Your task to perform on an android device: open app "Spotify: Music and Podcasts" (install if not already installed) and enter user name: "principled@inbox.com" and password: "arrests" Image 0: 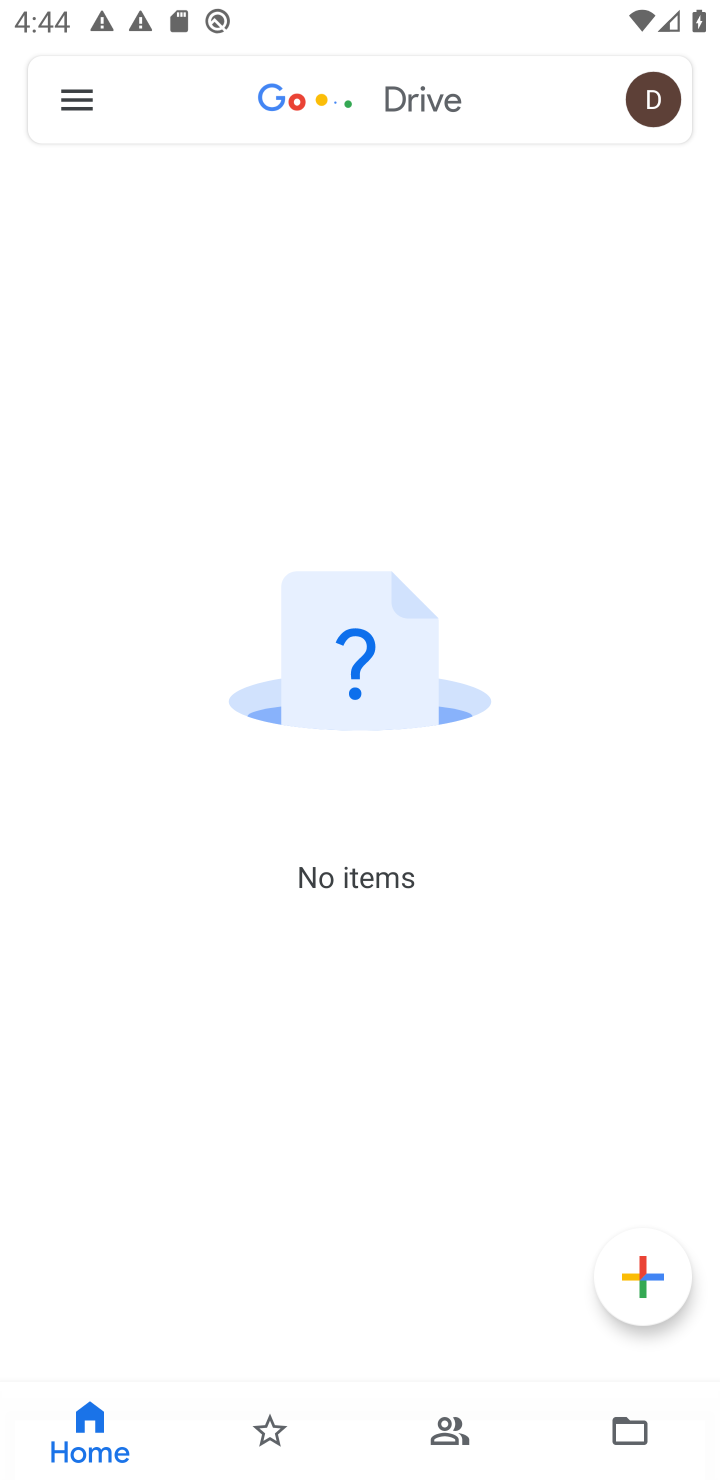
Step 0: press back button
Your task to perform on an android device: open app "Spotify: Music and Podcasts" (install if not already installed) and enter user name: "principled@inbox.com" and password: "arrests" Image 1: 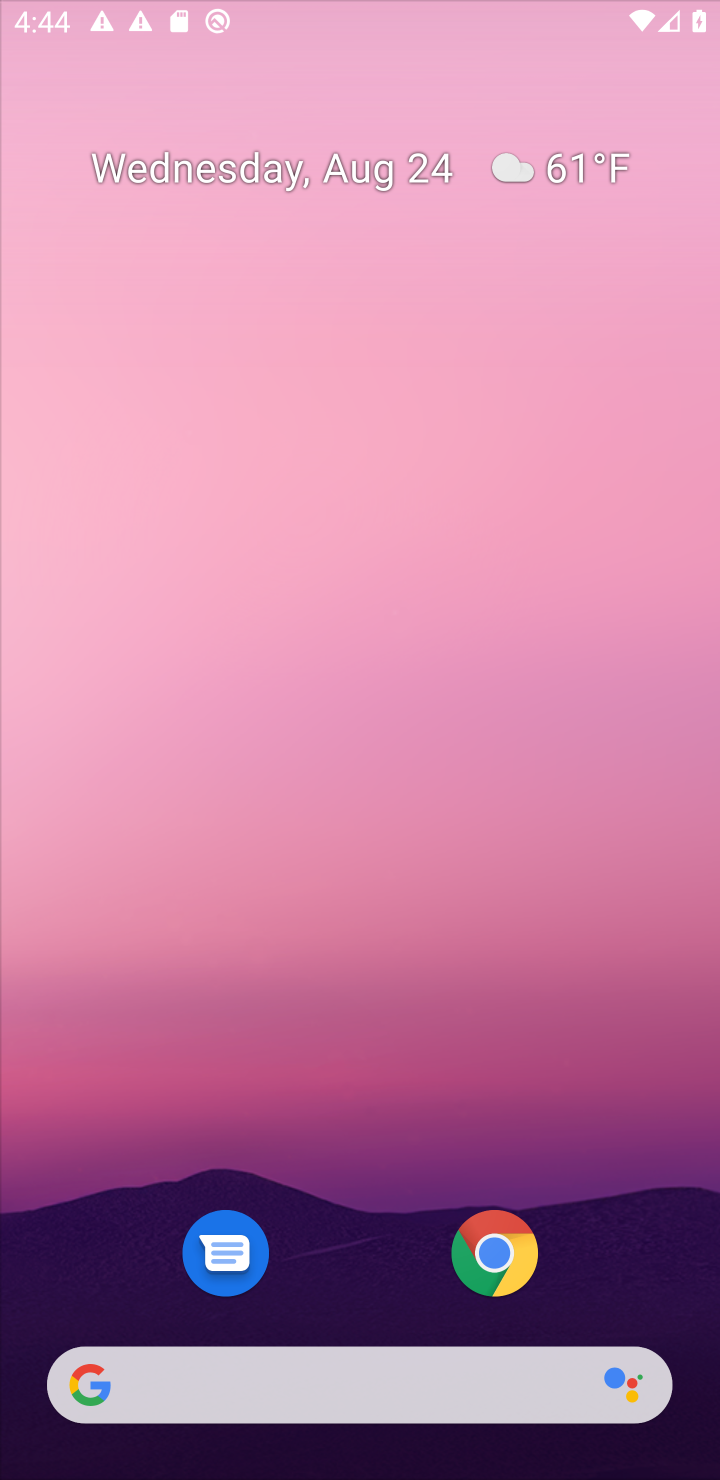
Step 1: press back button
Your task to perform on an android device: open app "Spotify: Music and Podcasts" (install if not already installed) and enter user name: "principled@inbox.com" and password: "arrests" Image 2: 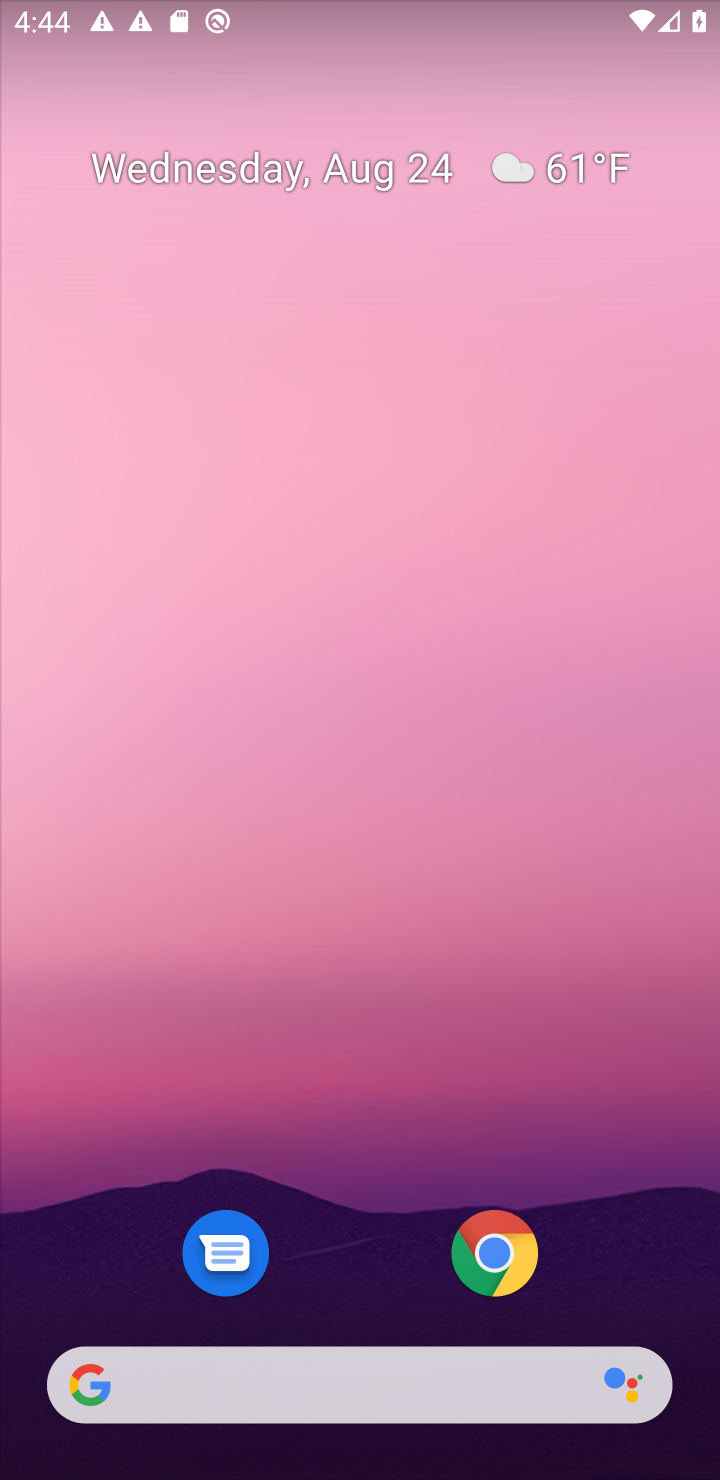
Step 2: drag from (359, 1326) to (514, 241)
Your task to perform on an android device: open app "Spotify: Music and Podcasts" (install if not already installed) and enter user name: "principled@inbox.com" and password: "arrests" Image 3: 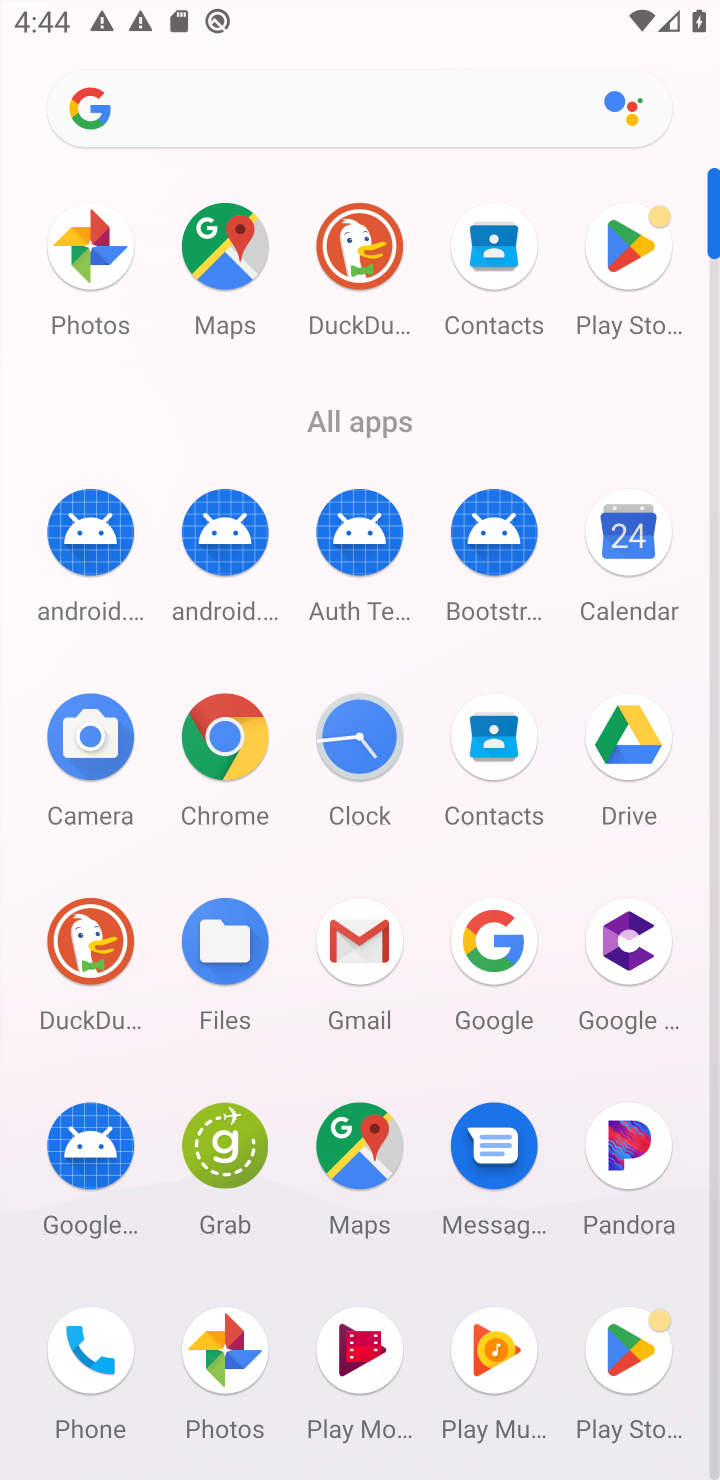
Step 3: click (651, 240)
Your task to perform on an android device: open app "Spotify: Music and Podcasts" (install if not already installed) and enter user name: "principled@inbox.com" and password: "arrests" Image 4: 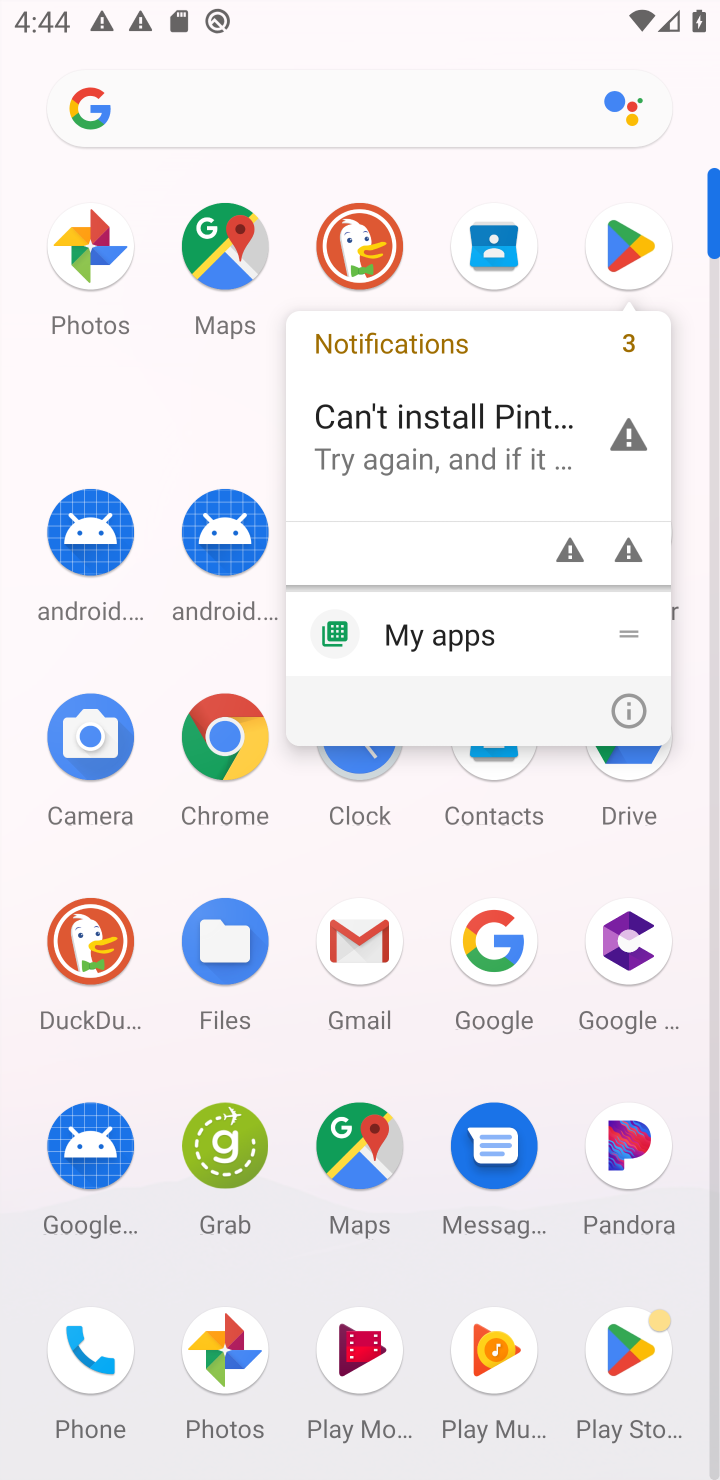
Step 4: click (630, 245)
Your task to perform on an android device: open app "Spotify: Music and Podcasts" (install if not already installed) and enter user name: "principled@inbox.com" and password: "arrests" Image 5: 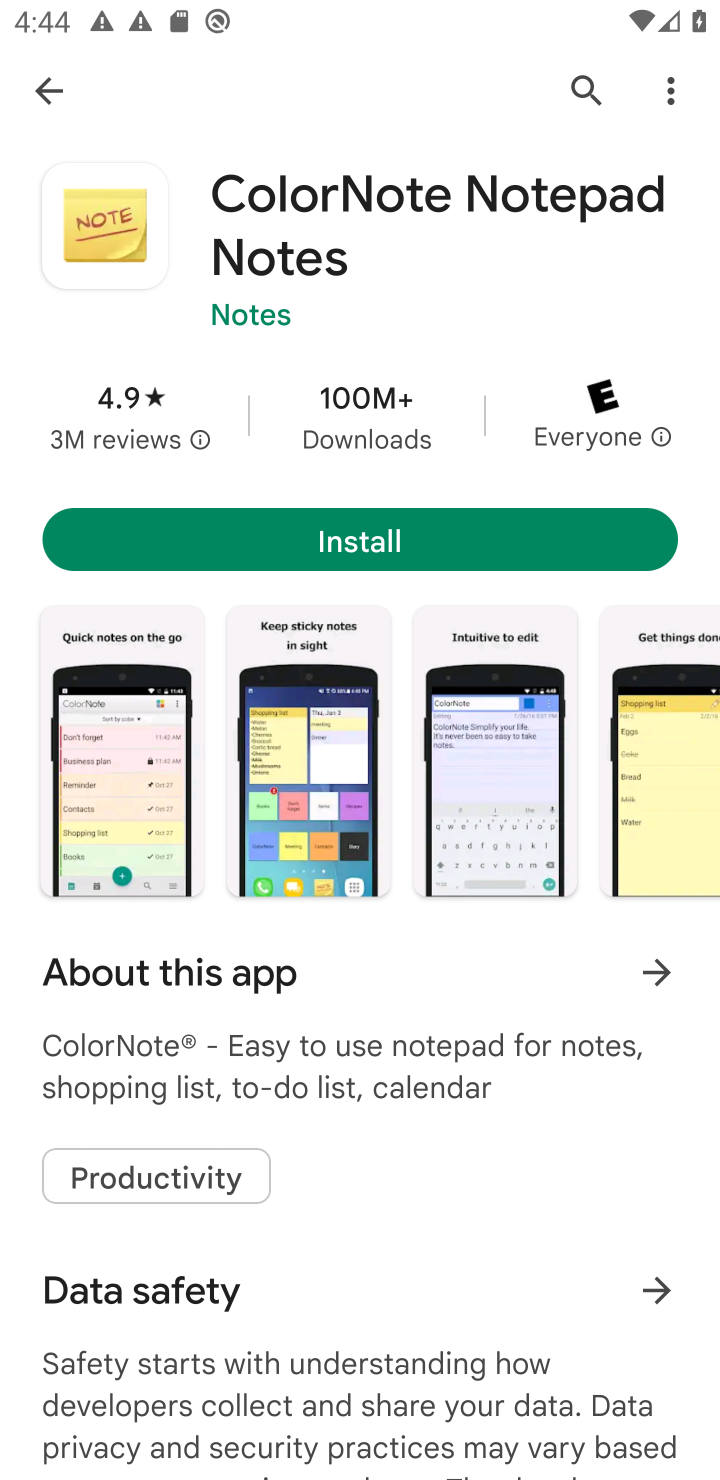
Step 5: click (580, 88)
Your task to perform on an android device: open app "Spotify: Music and Podcasts" (install if not already installed) and enter user name: "principled@inbox.com" and password: "arrests" Image 6: 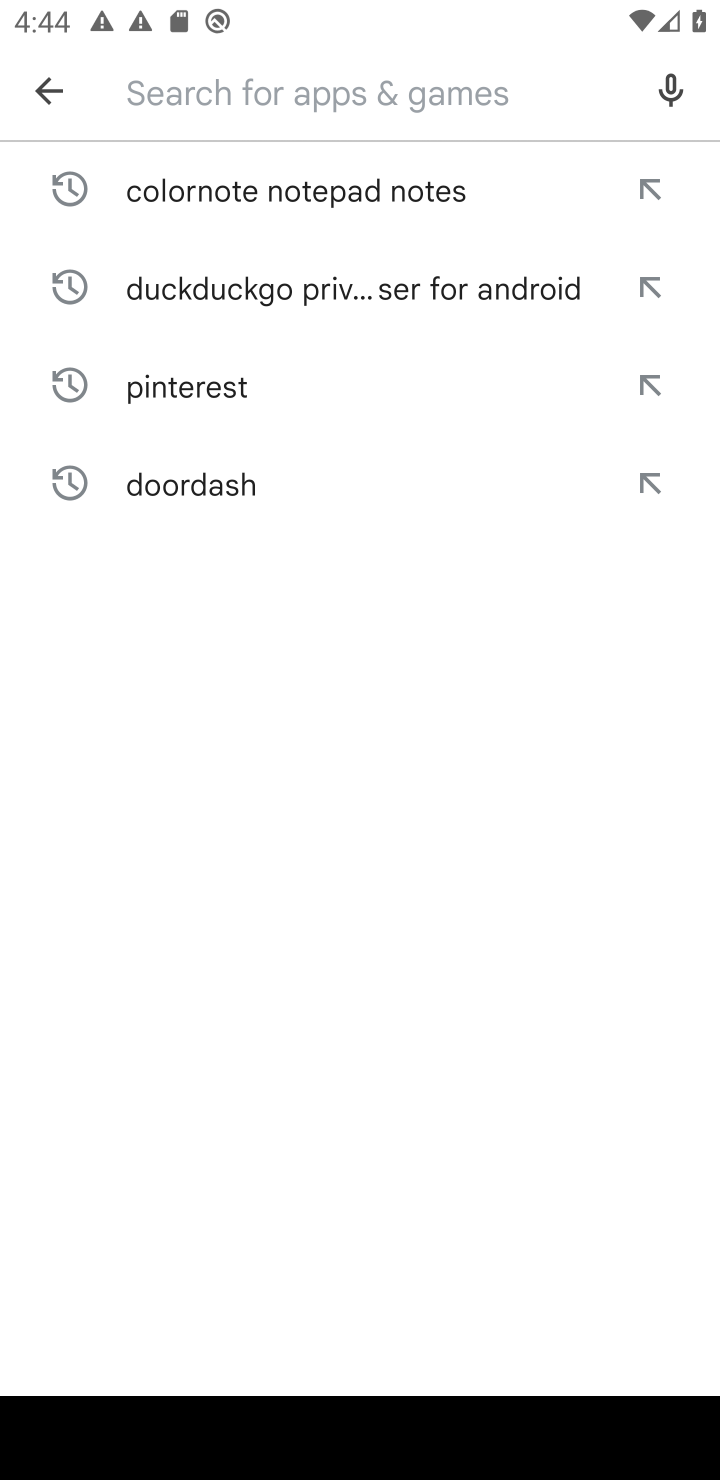
Step 6: click (223, 94)
Your task to perform on an android device: open app "Spotify: Music and Podcasts" (install if not already installed) and enter user name: "principled@inbox.com" and password: "arrests" Image 7: 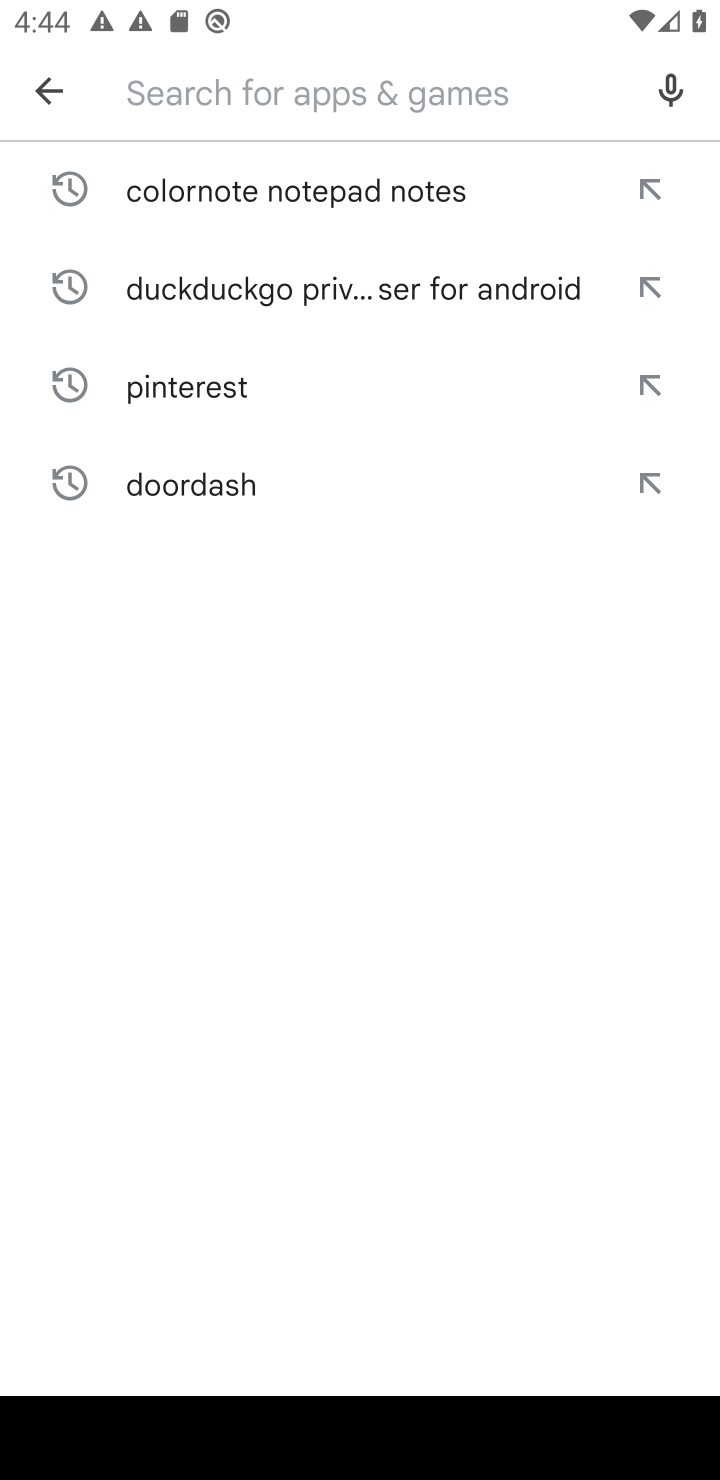
Step 7: type "Spotify"
Your task to perform on an android device: open app "Spotify: Music and Podcasts" (install if not already installed) and enter user name: "principled@inbox.com" and password: "arrests" Image 8: 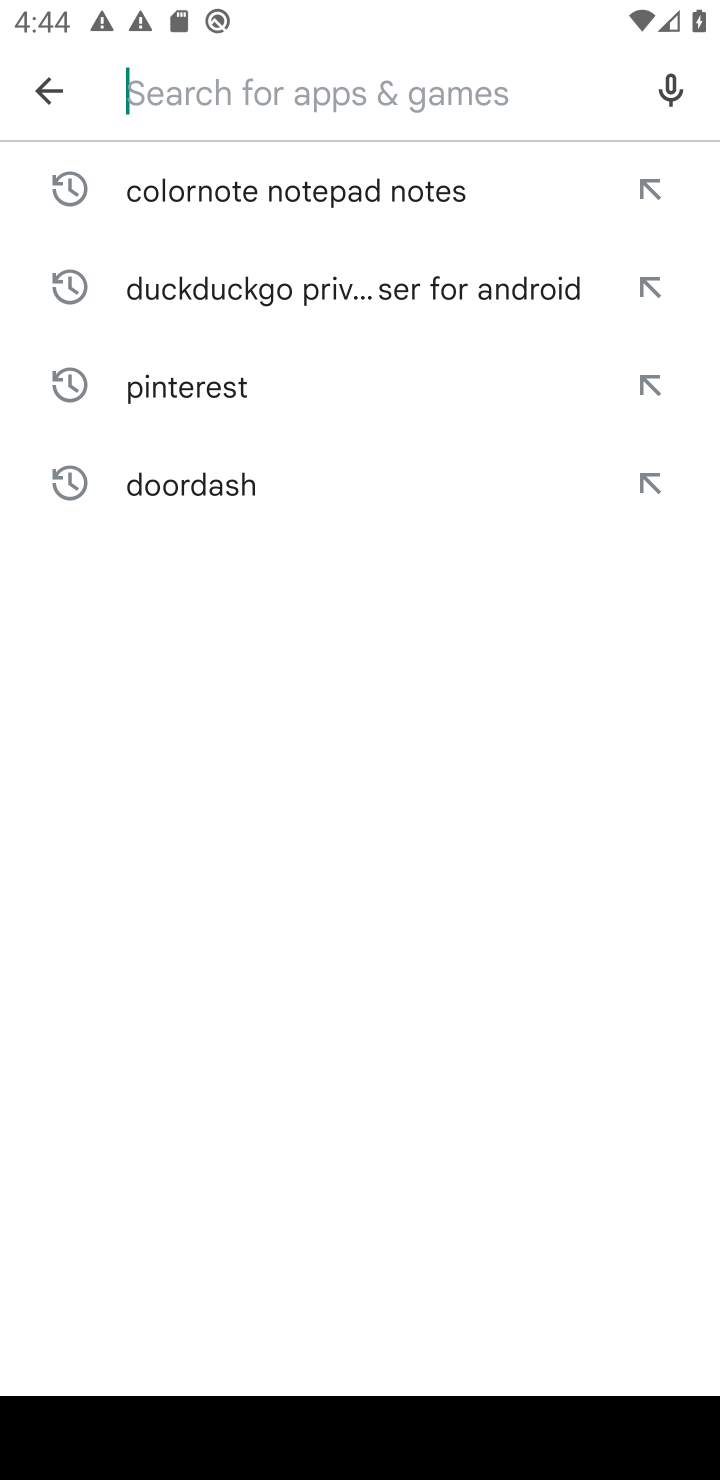
Step 8: click (286, 889)
Your task to perform on an android device: open app "Spotify: Music and Podcasts" (install if not already installed) and enter user name: "principled@inbox.com" and password: "arrests" Image 9: 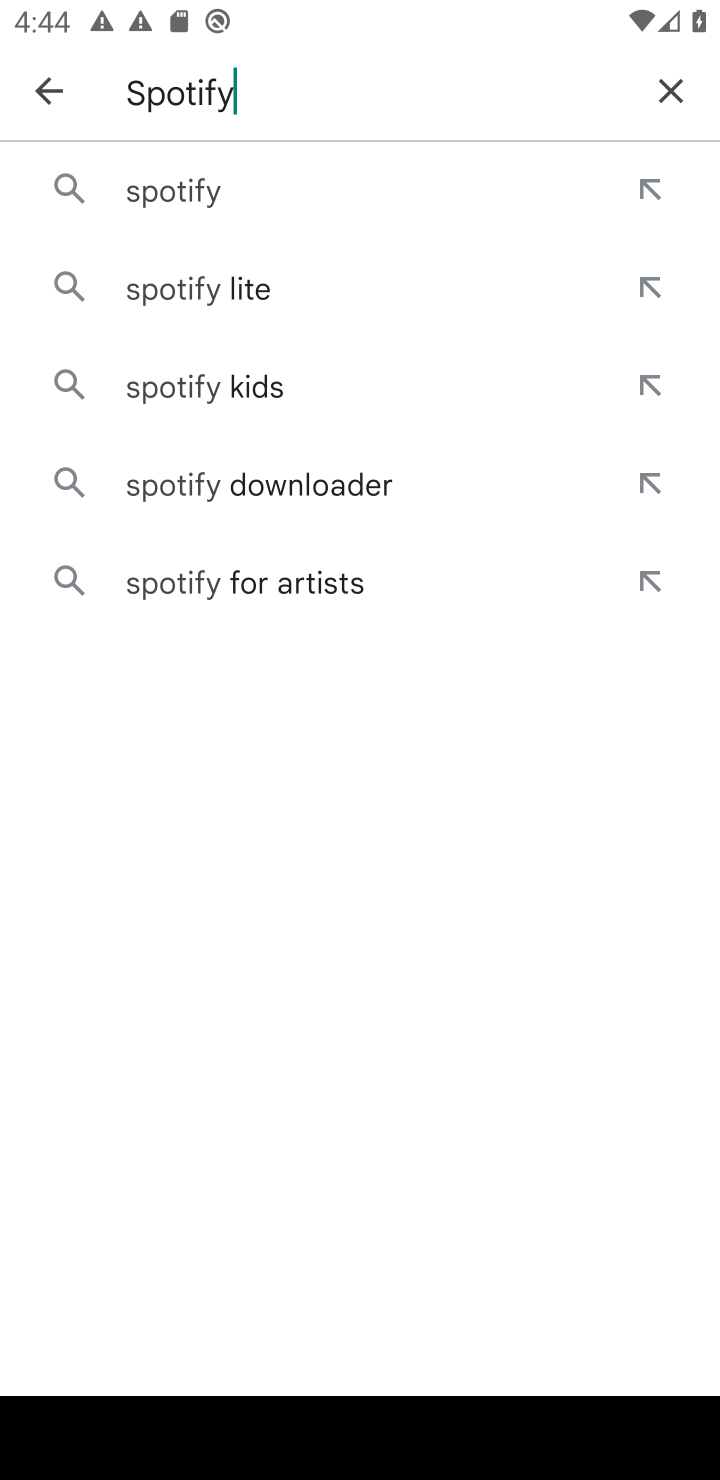
Step 9: click (179, 188)
Your task to perform on an android device: open app "Spotify: Music and Podcasts" (install if not already installed) and enter user name: "principled@inbox.com" and password: "arrests" Image 10: 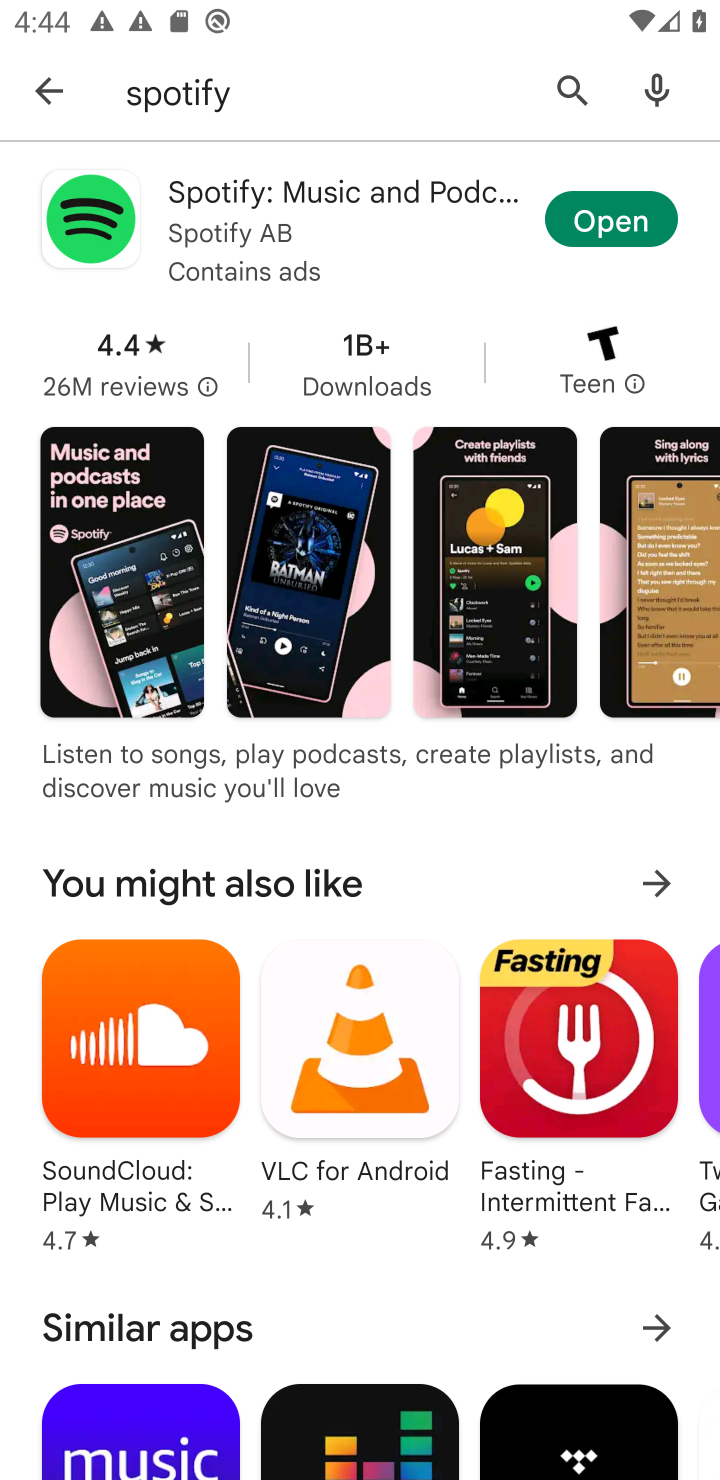
Step 10: click (624, 234)
Your task to perform on an android device: open app "Spotify: Music and Podcasts" (install if not already installed) and enter user name: "principled@inbox.com" and password: "arrests" Image 11: 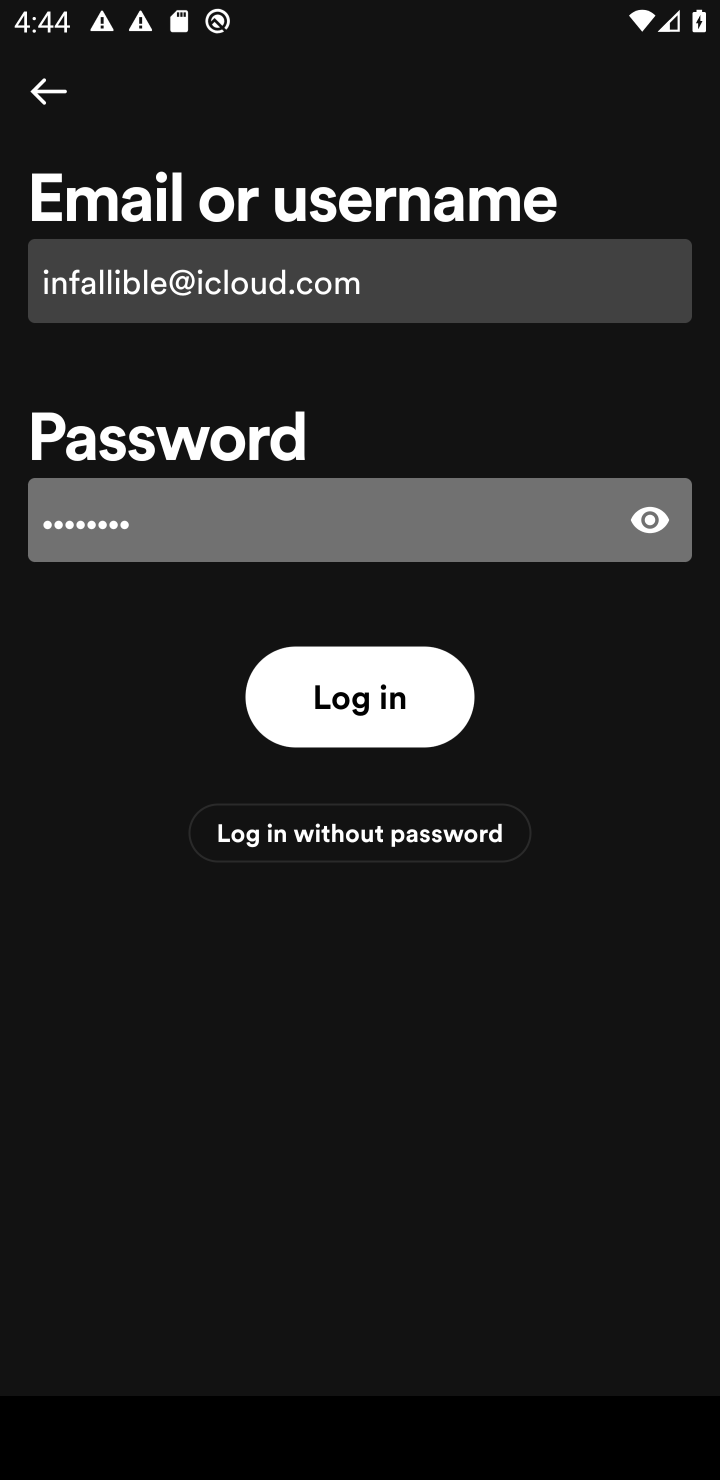
Step 11: click (393, 268)
Your task to perform on an android device: open app "Spotify: Music and Podcasts" (install if not already installed) and enter user name: "principled@inbox.com" and password: "arrests" Image 12: 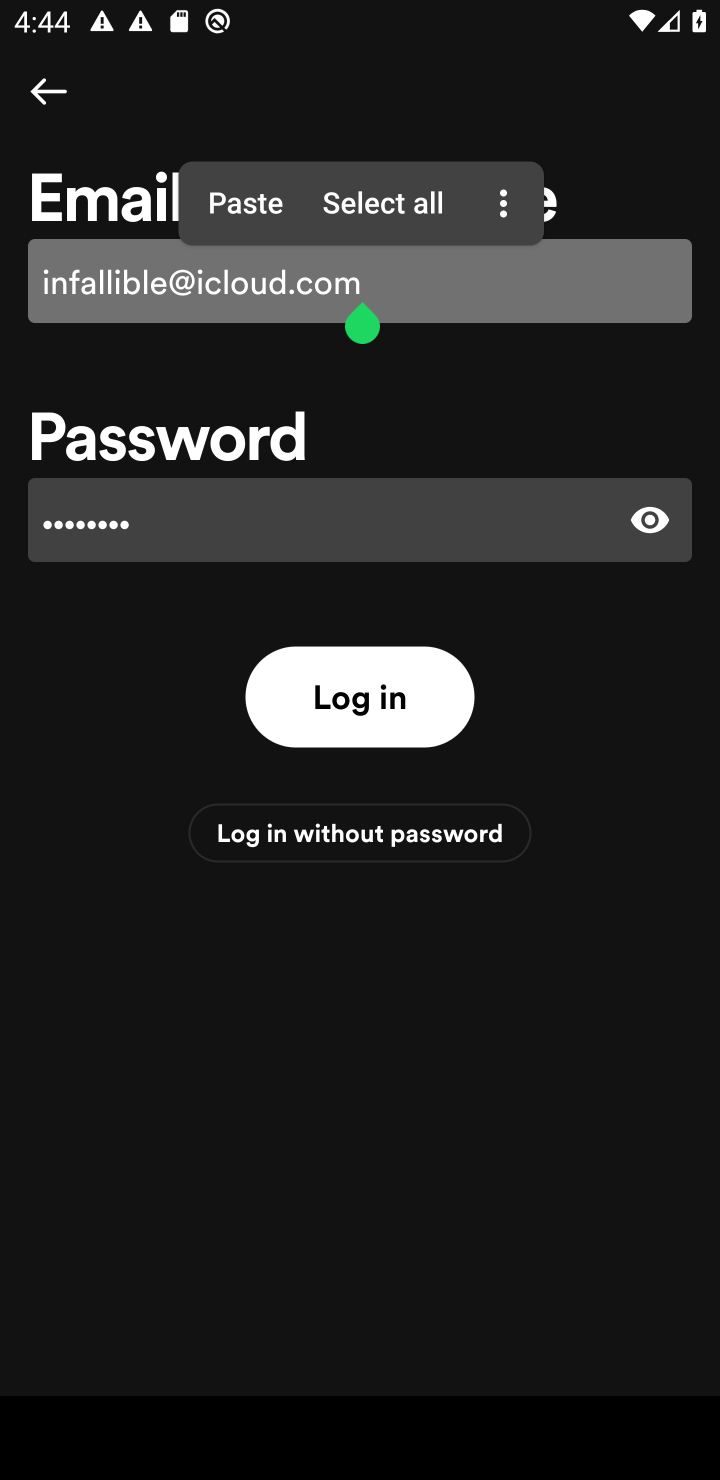
Step 12: click (411, 205)
Your task to perform on an android device: open app "Spotify: Music and Podcasts" (install if not already installed) and enter user name: "principled@inbox.com" and password: "arrests" Image 13: 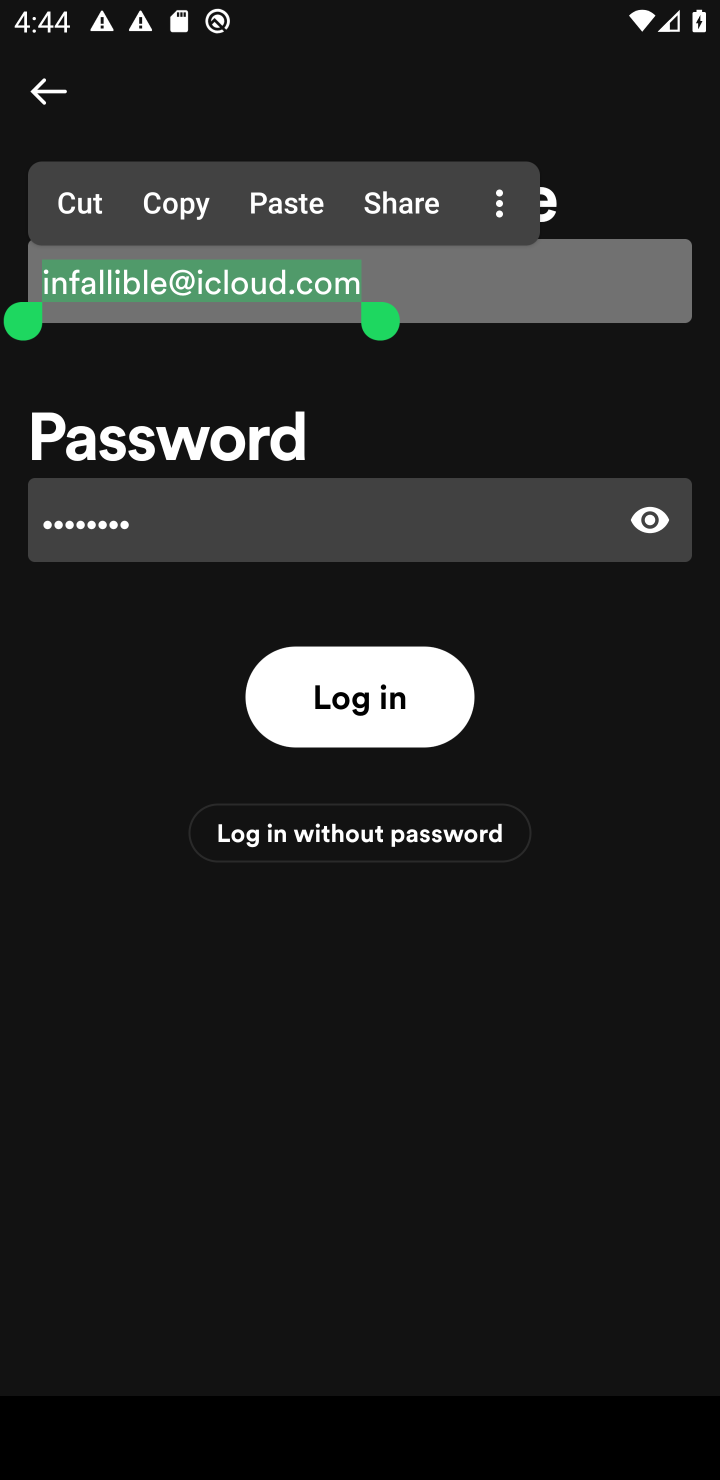
Step 13: click (92, 196)
Your task to perform on an android device: open app "Spotify: Music and Podcasts" (install if not already installed) and enter user name: "principled@inbox.com" and password: "arrests" Image 14: 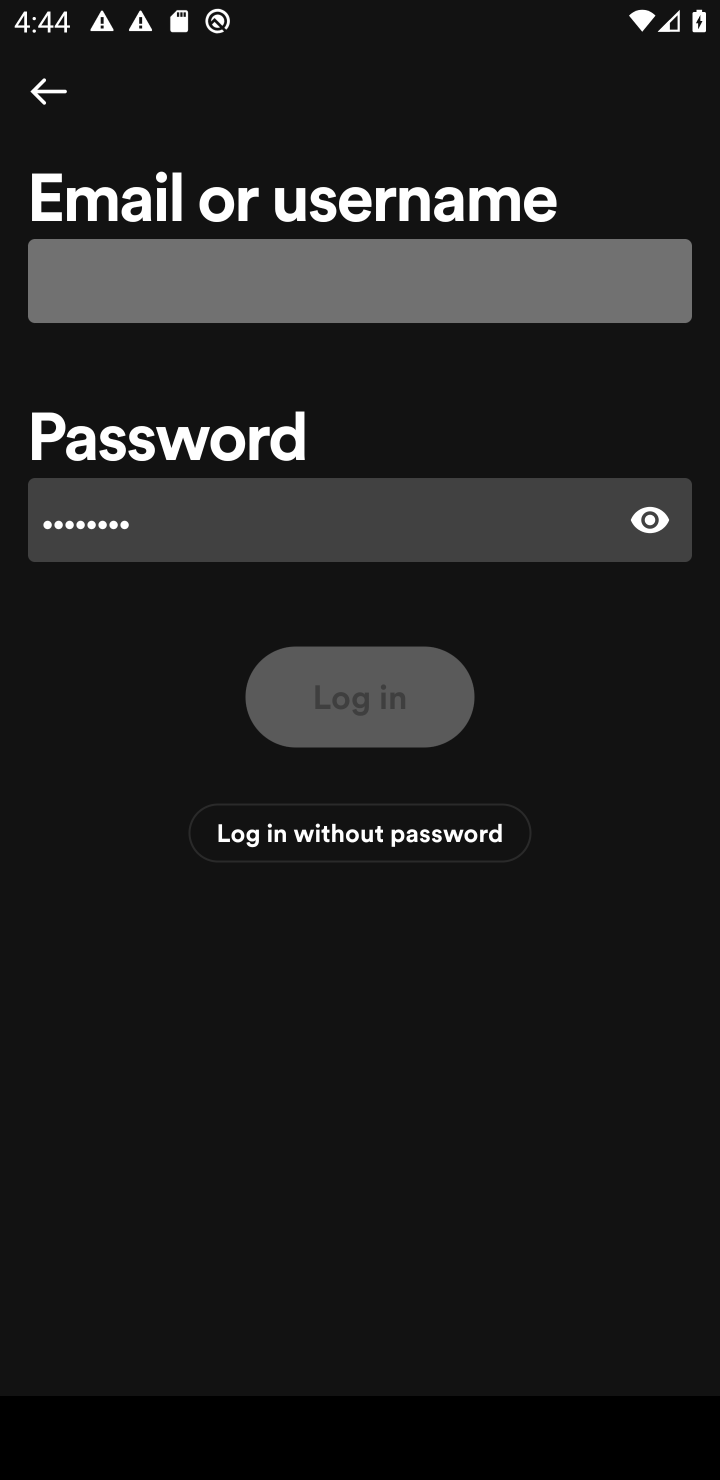
Step 14: click (115, 501)
Your task to perform on an android device: open app "Spotify: Music and Podcasts" (install if not already installed) and enter user name: "principled@inbox.com" and password: "arrests" Image 15: 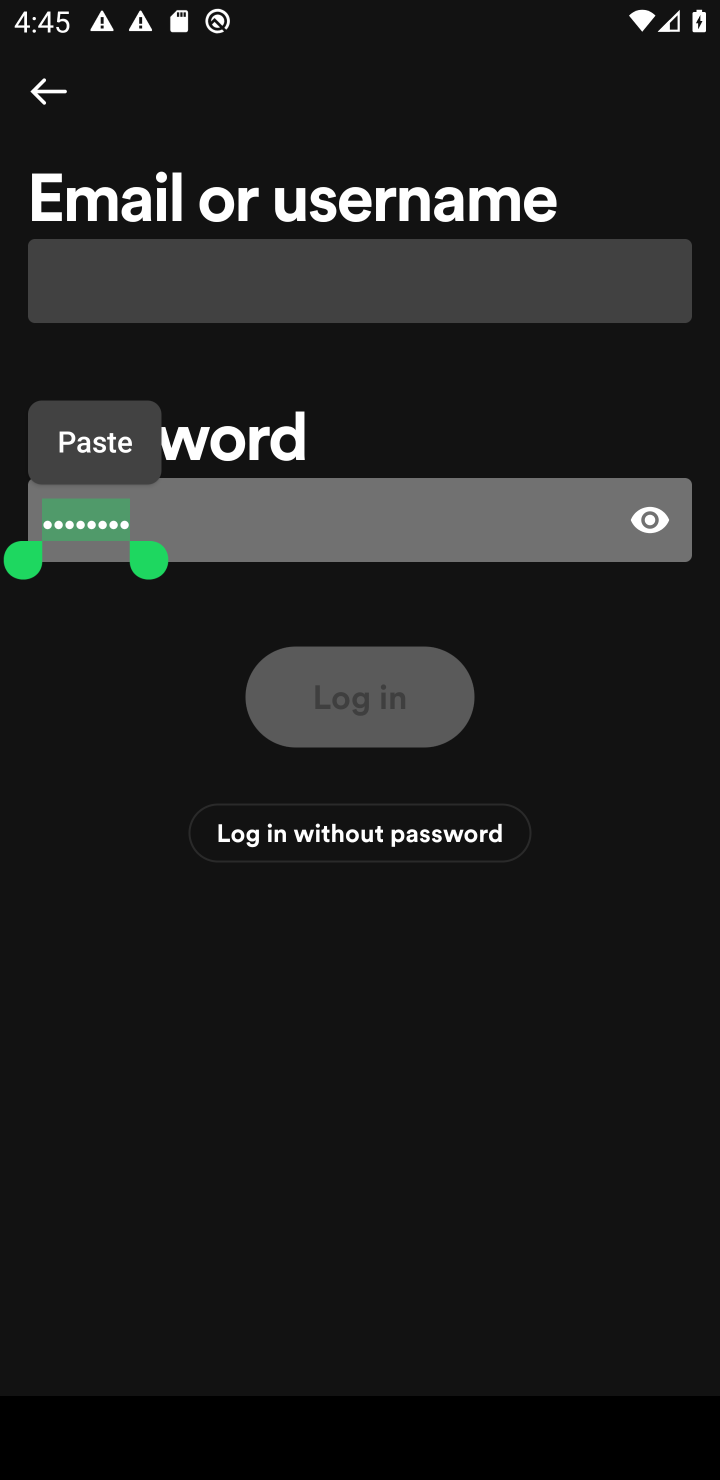
Step 15: type "arrests"
Your task to perform on an android device: open app "Spotify: Music and Podcasts" (install if not already installed) and enter user name: "principled@inbox.com" and password: "arrests" Image 16: 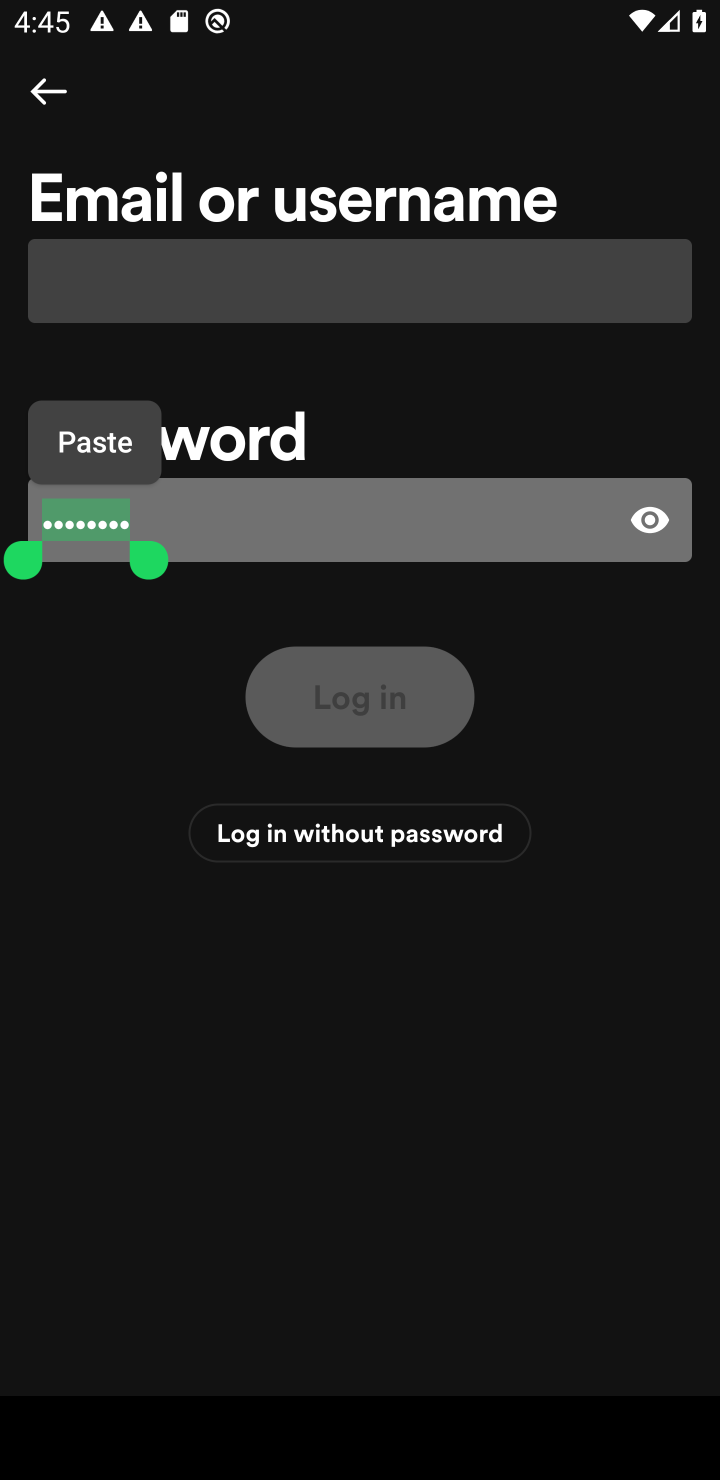
Step 16: click (303, 1143)
Your task to perform on an android device: open app "Spotify: Music and Podcasts" (install if not already installed) and enter user name: "principled@inbox.com" and password: "arrests" Image 17: 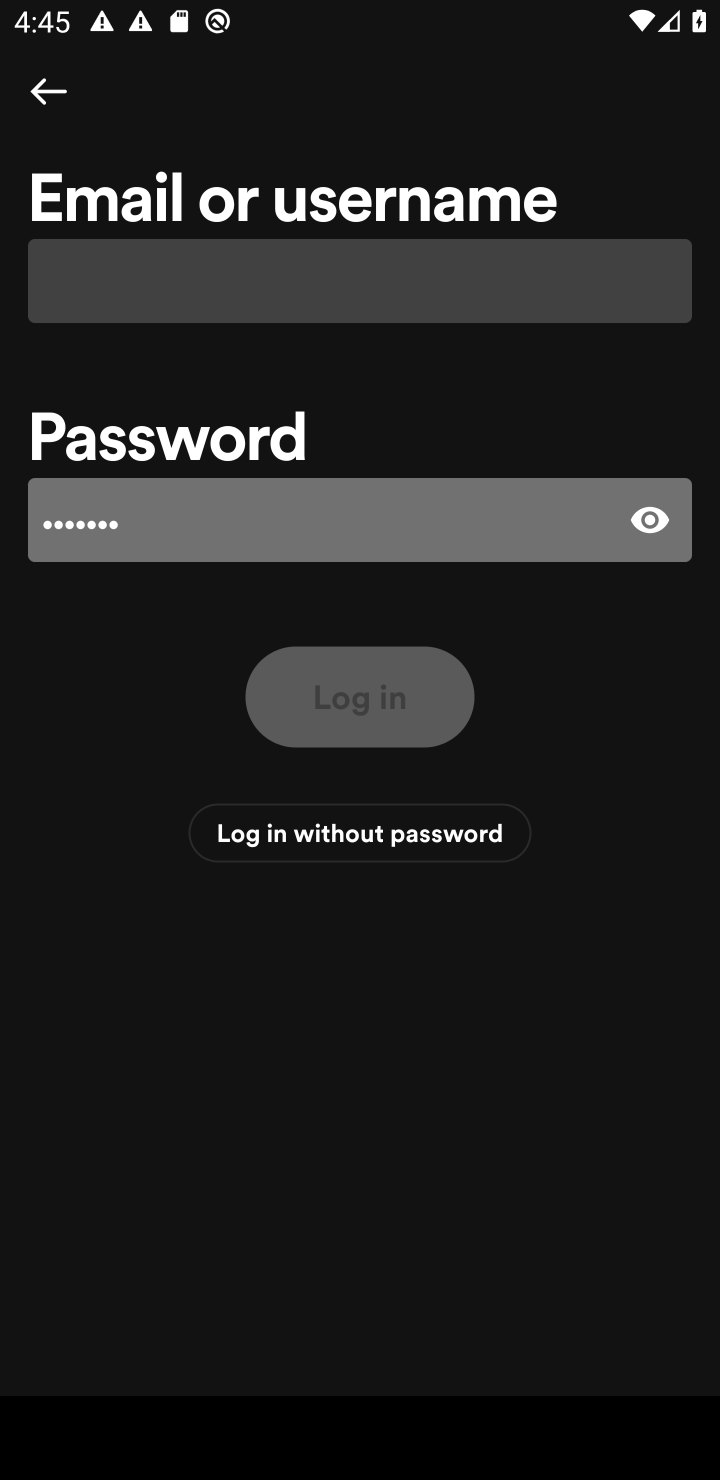
Step 17: click (267, 268)
Your task to perform on an android device: open app "Spotify: Music and Podcasts" (install if not already installed) and enter user name: "principled@inbox.com" and password: "arrests" Image 18: 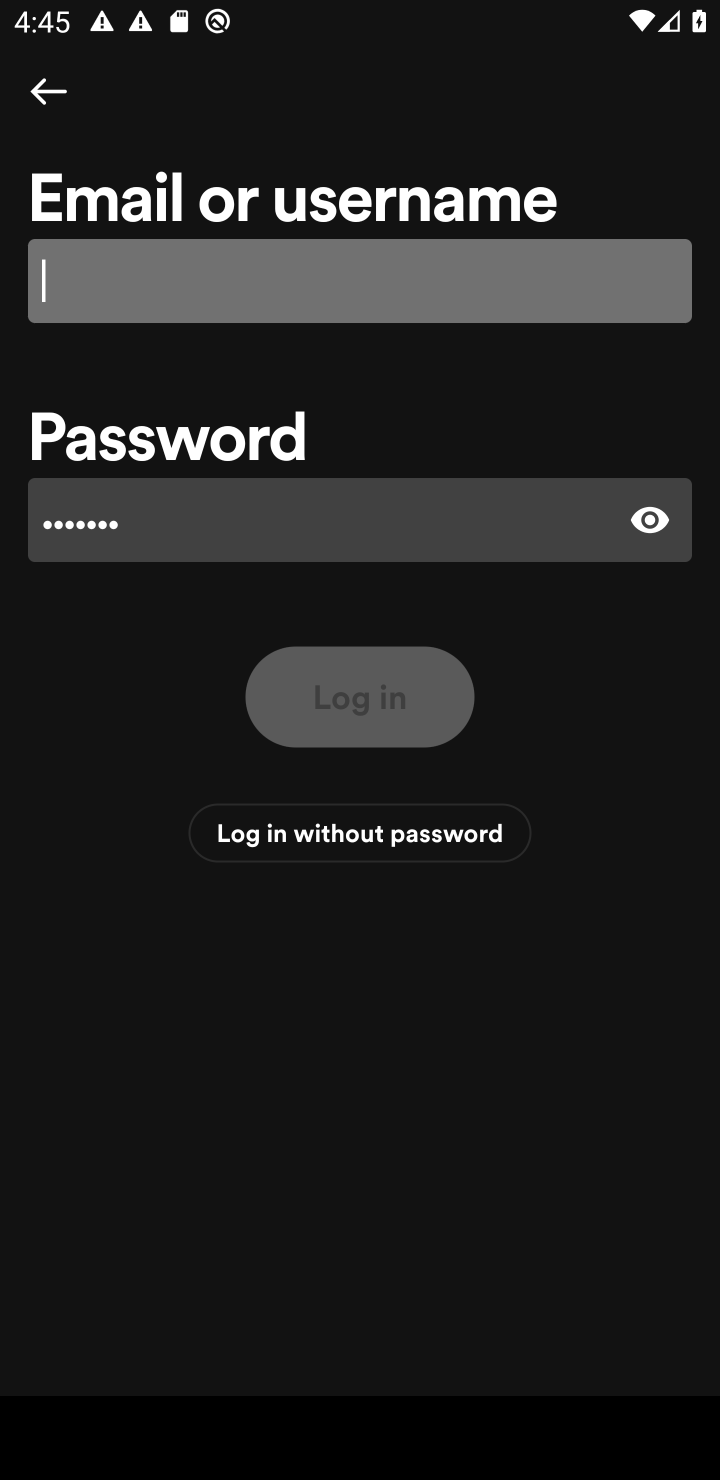
Step 18: click (377, 305)
Your task to perform on an android device: open app "Spotify: Music and Podcasts" (install if not already installed) and enter user name: "principled@inbox.com" and password: "arrests" Image 19: 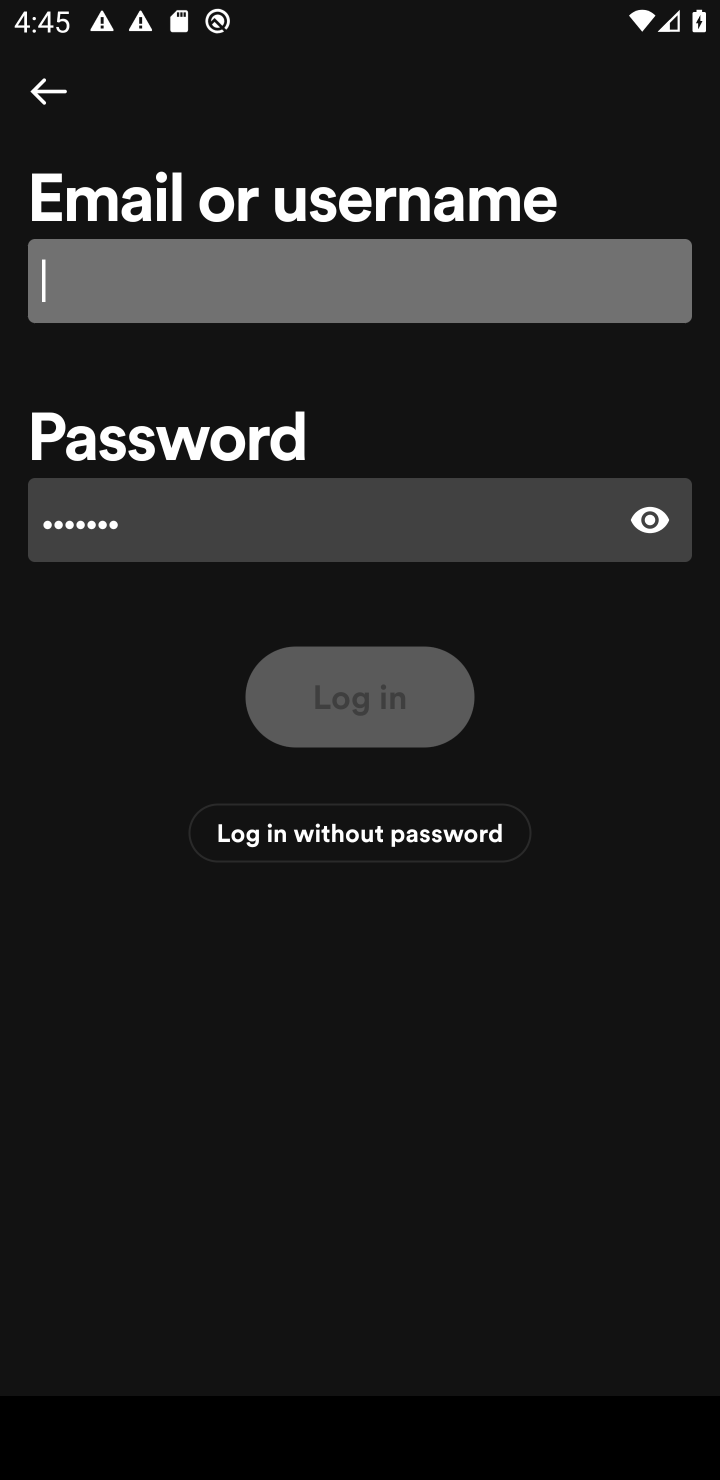
Step 19: type "principled@inbox.com"
Your task to perform on an android device: open app "Spotify: Music and Podcasts" (install if not already installed) and enter user name: "principled@inbox.com" and password: "arrests" Image 20: 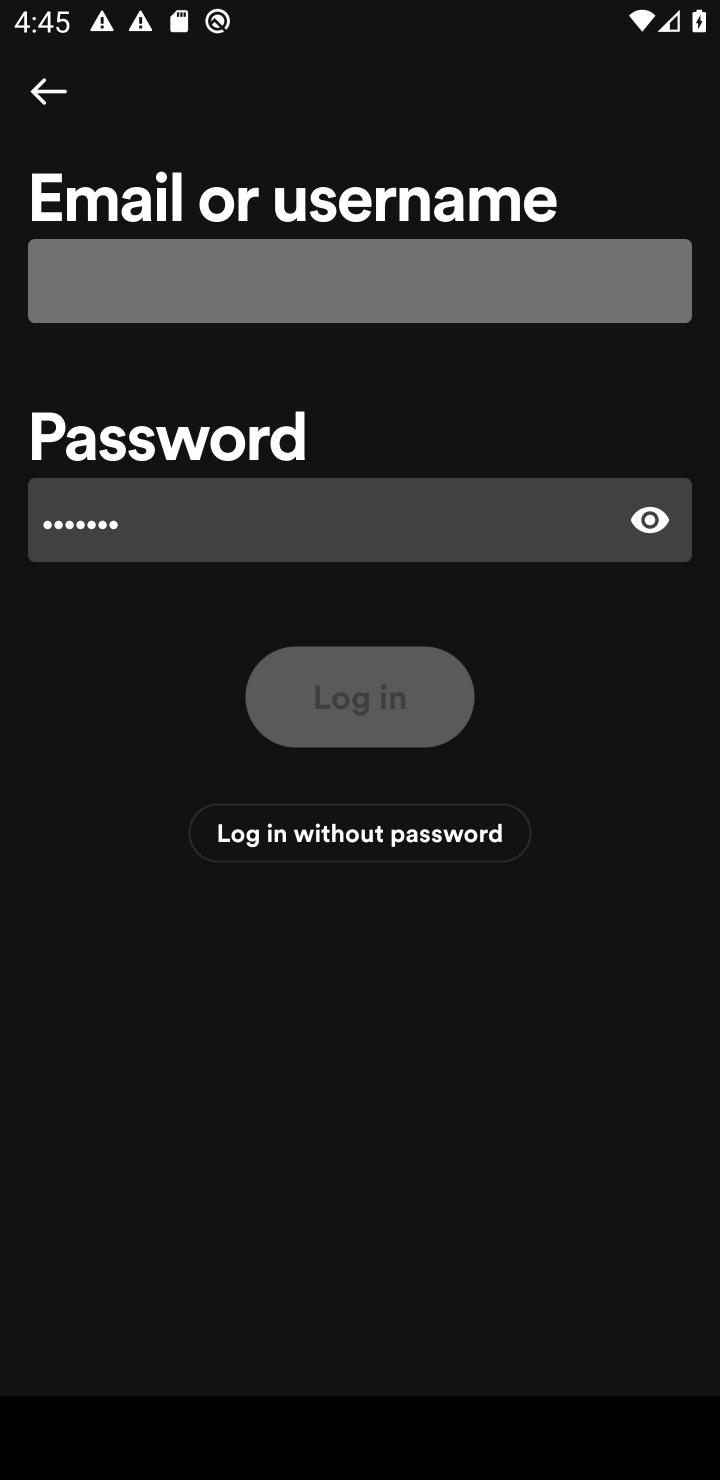
Step 20: click (255, 1033)
Your task to perform on an android device: open app "Spotify: Music and Podcasts" (install if not already installed) and enter user name: "principled@inbox.com" and password: "arrests" Image 21: 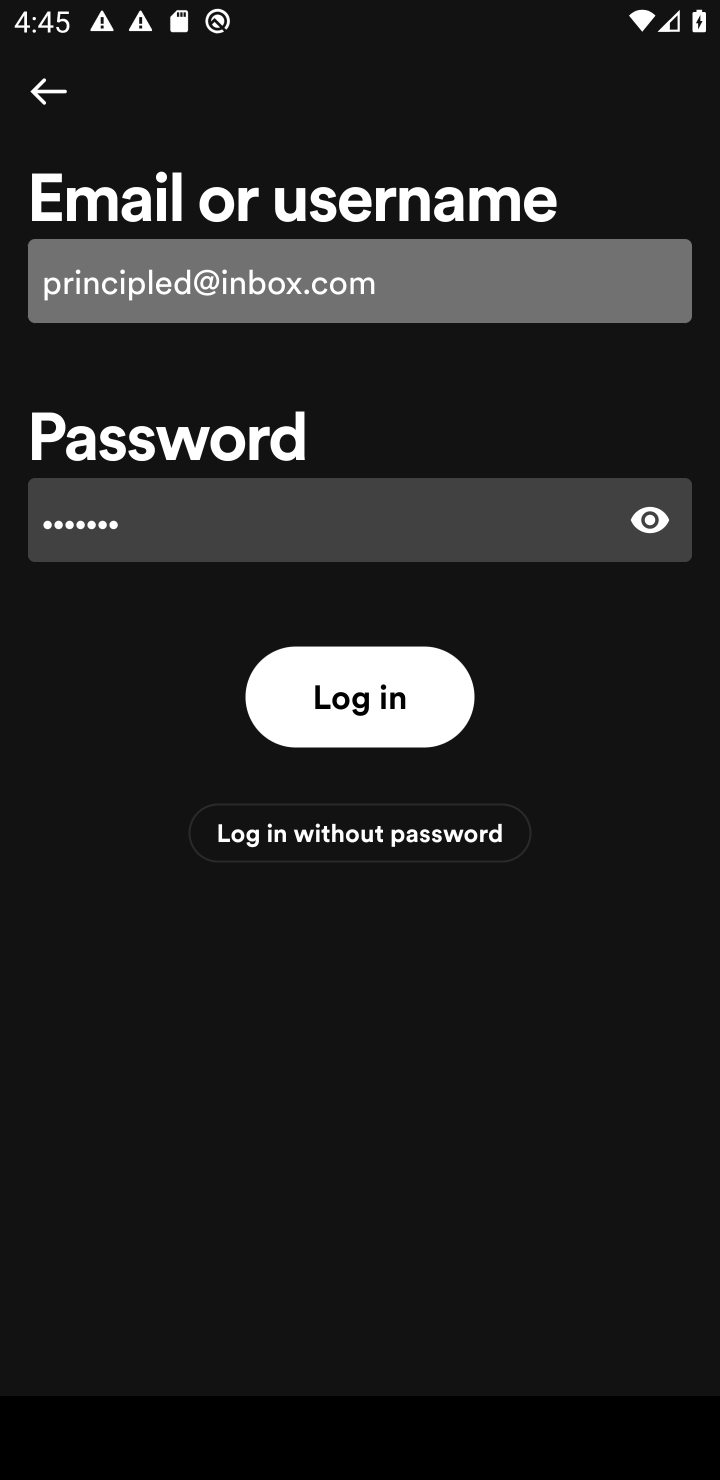
Step 21: type "principled@inbox.com"
Your task to perform on an android device: open app "Spotify: Music and Podcasts" (install if not already installed) and enter user name: "principled@inbox.com" and password: "arrests" Image 22: 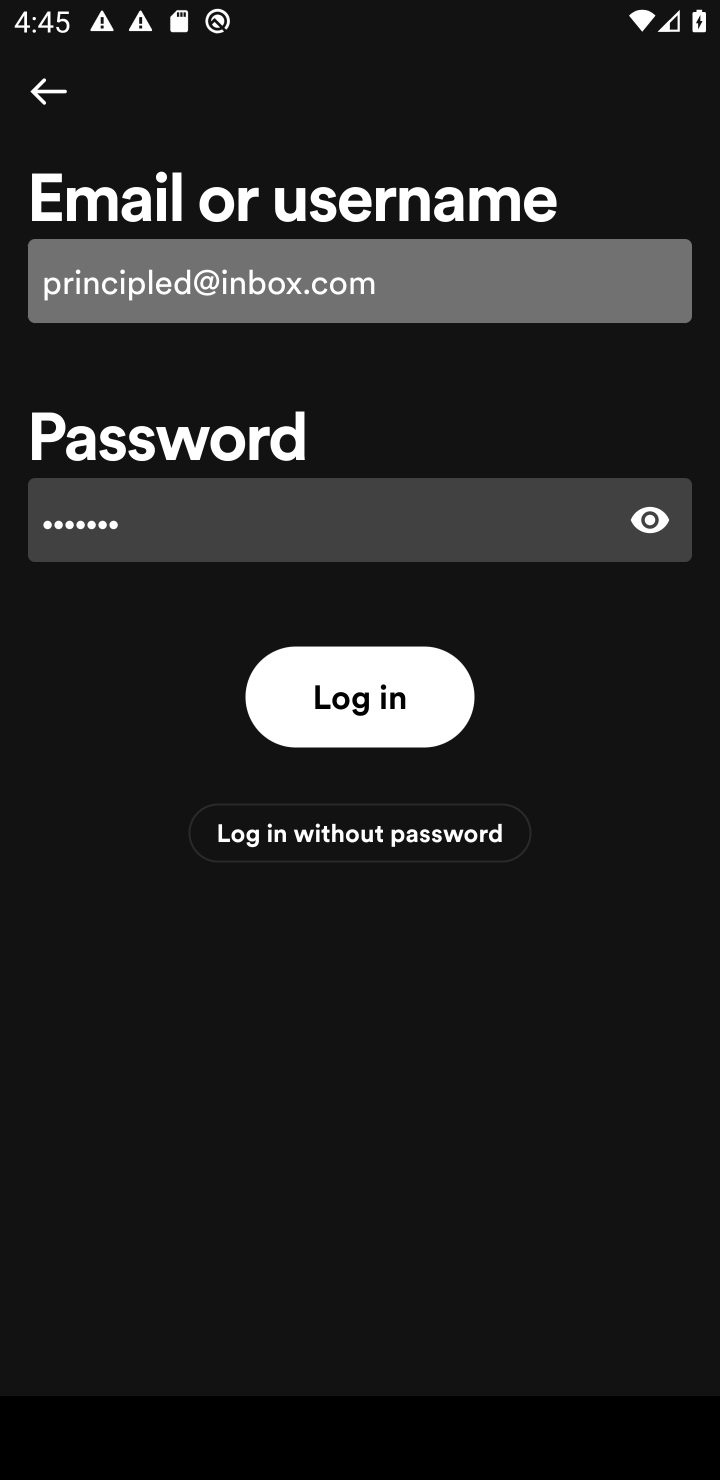
Step 22: click (307, 1087)
Your task to perform on an android device: open app "Spotify: Music and Podcasts" (install if not already installed) and enter user name: "principled@inbox.com" and password: "arrests" Image 23: 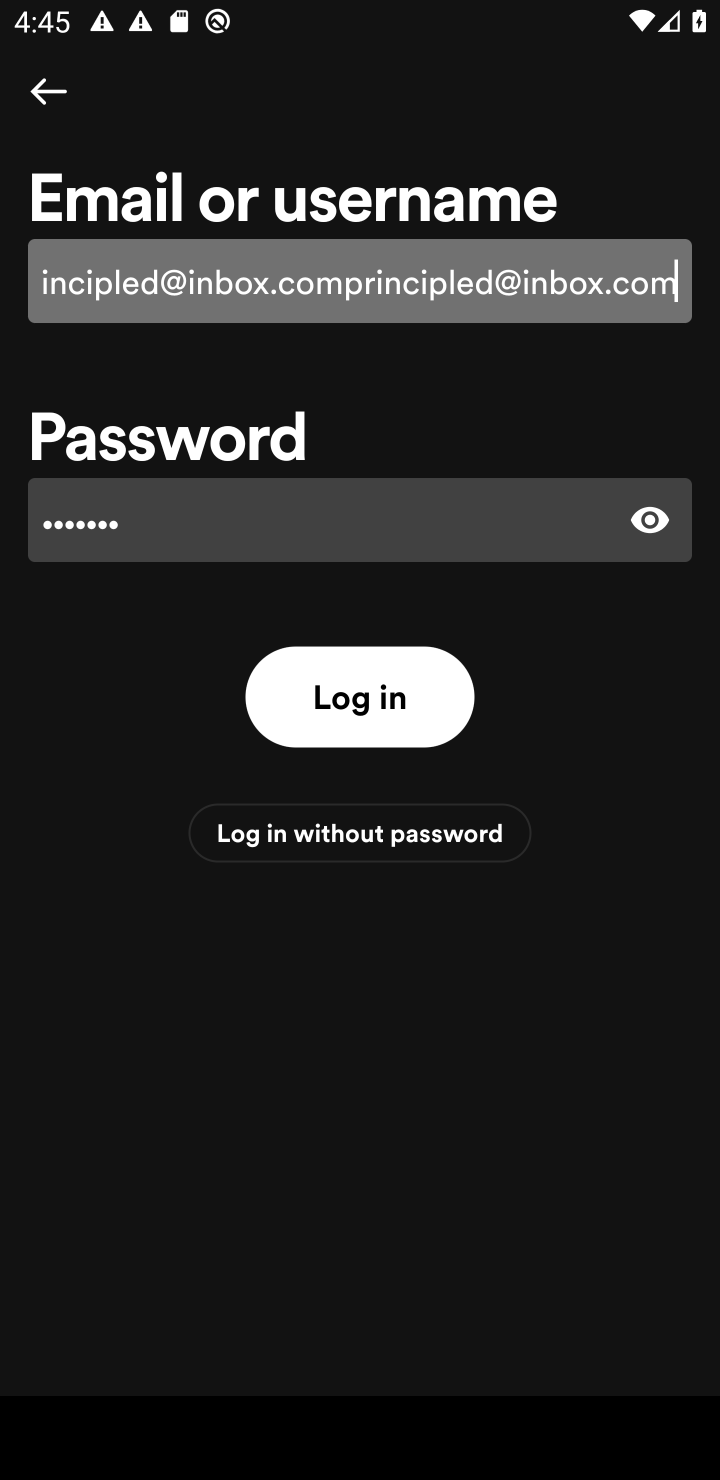
Step 23: task complete